Your task to perform on an android device: Go to ESPN.com Image 0: 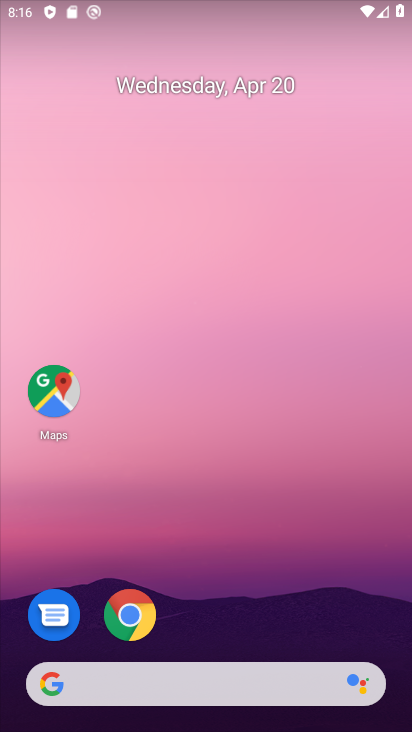
Step 0: click (24, 382)
Your task to perform on an android device: Go to ESPN.com Image 1: 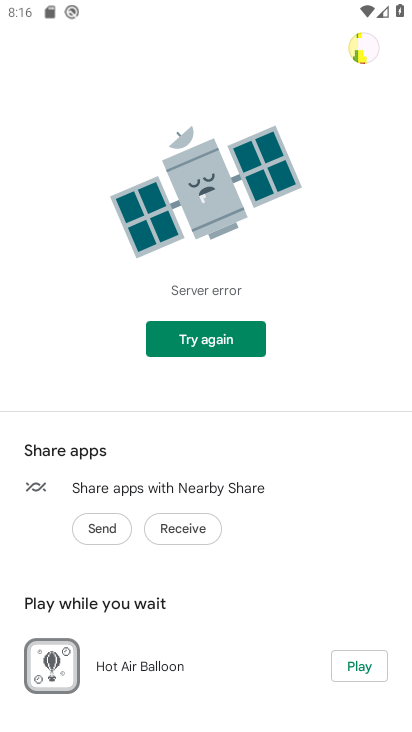
Step 1: press home button
Your task to perform on an android device: Go to ESPN.com Image 2: 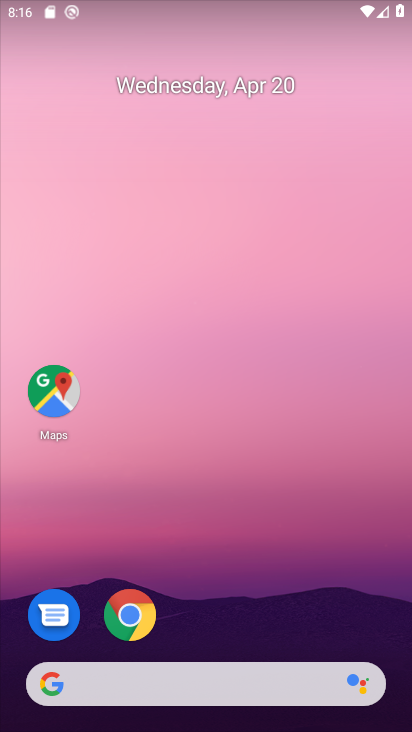
Step 2: click (135, 618)
Your task to perform on an android device: Go to ESPN.com Image 3: 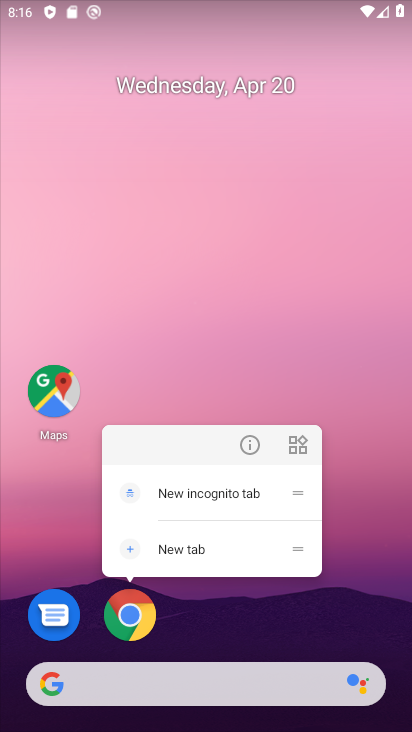
Step 3: click (137, 606)
Your task to perform on an android device: Go to ESPN.com Image 4: 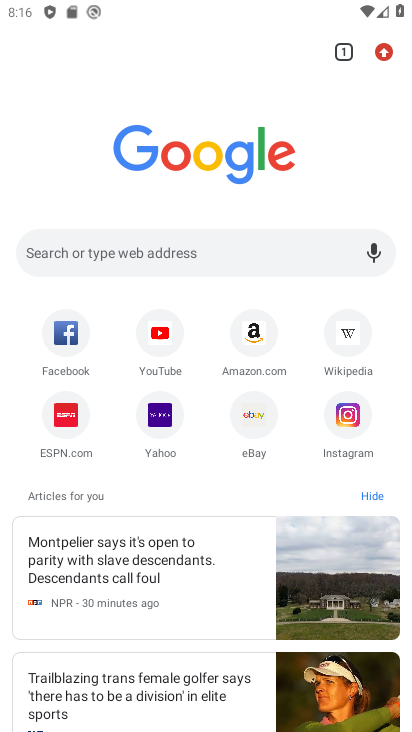
Step 4: click (170, 263)
Your task to perform on an android device: Go to ESPN.com Image 5: 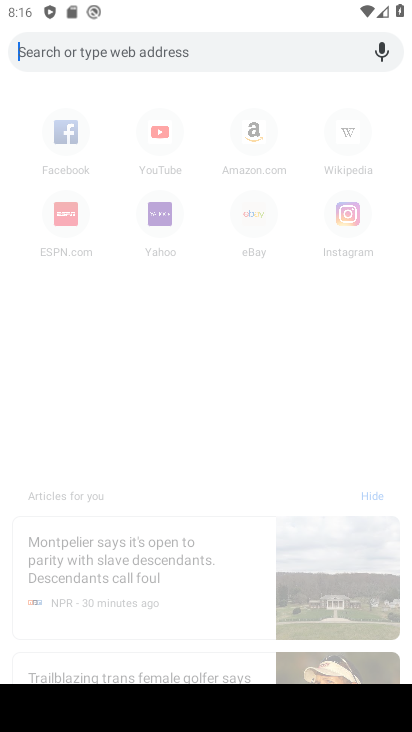
Step 5: type "espn.com"
Your task to perform on an android device: Go to ESPN.com Image 6: 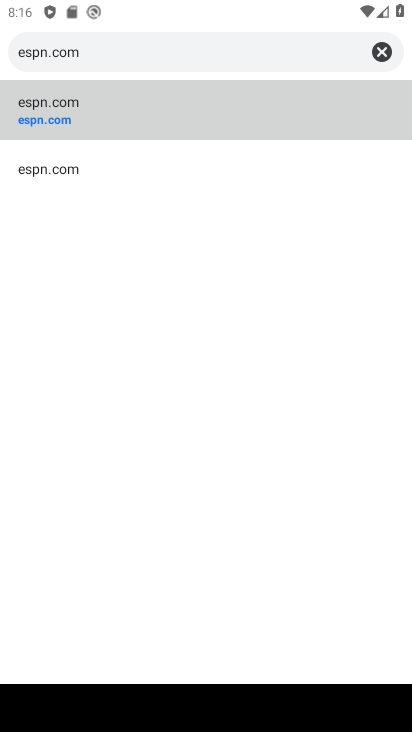
Step 6: click (124, 121)
Your task to perform on an android device: Go to ESPN.com Image 7: 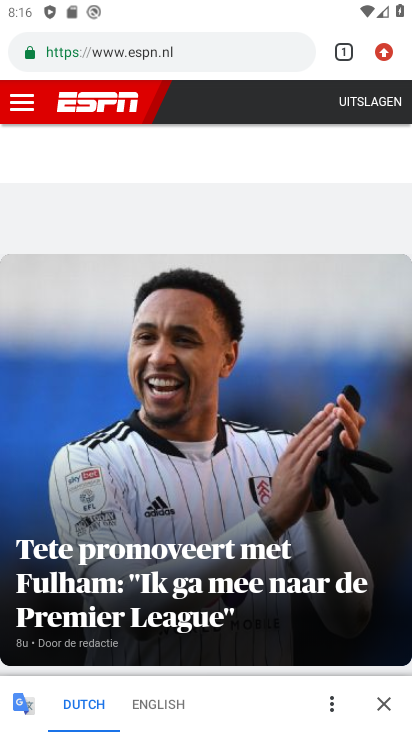
Step 7: task complete